Your task to perform on an android device: turn off smart reply in the gmail app Image 0: 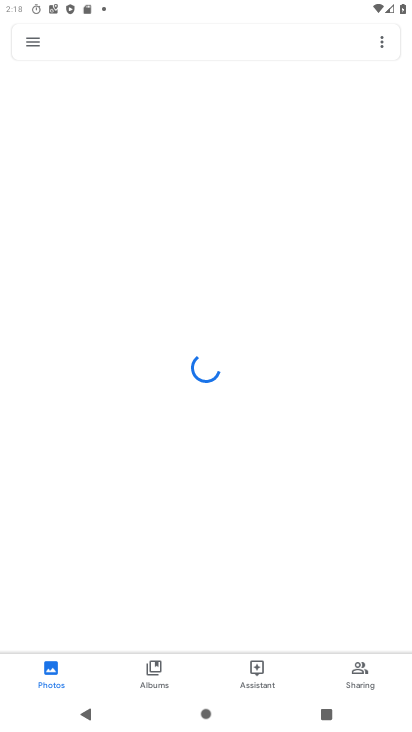
Step 0: press home button
Your task to perform on an android device: turn off smart reply in the gmail app Image 1: 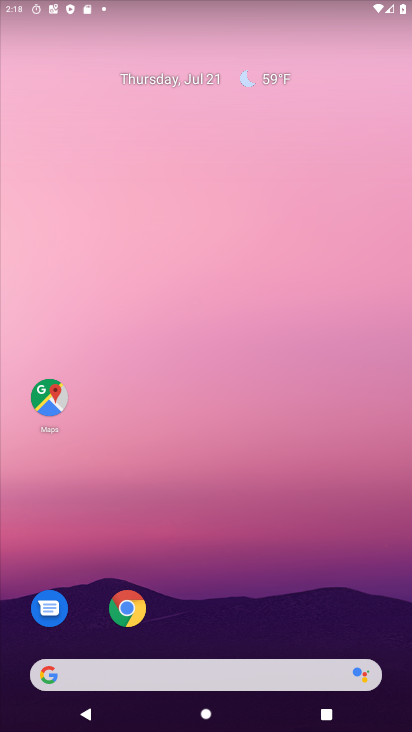
Step 1: drag from (260, 558) to (287, 117)
Your task to perform on an android device: turn off smart reply in the gmail app Image 2: 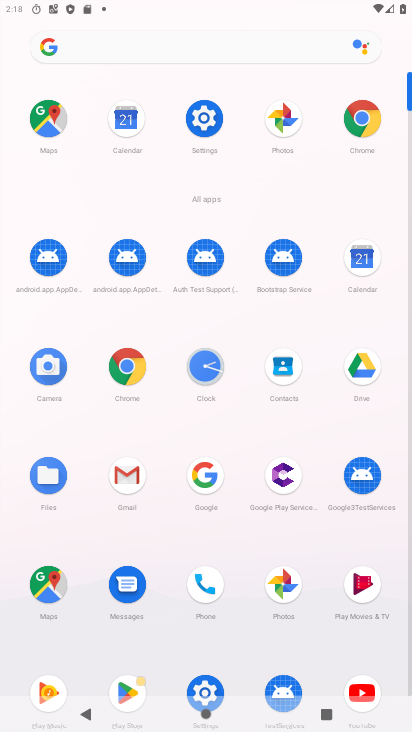
Step 2: click (114, 488)
Your task to perform on an android device: turn off smart reply in the gmail app Image 3: 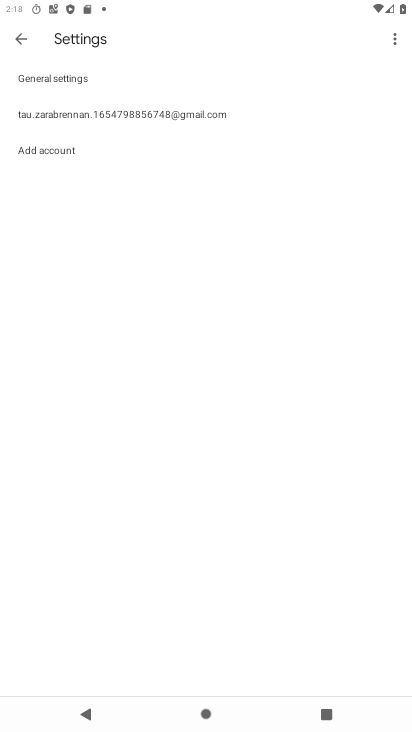
Step 3: click (78, 111)
Your task to perform on an android device: turn off smart reply in the gmail app Image 4: 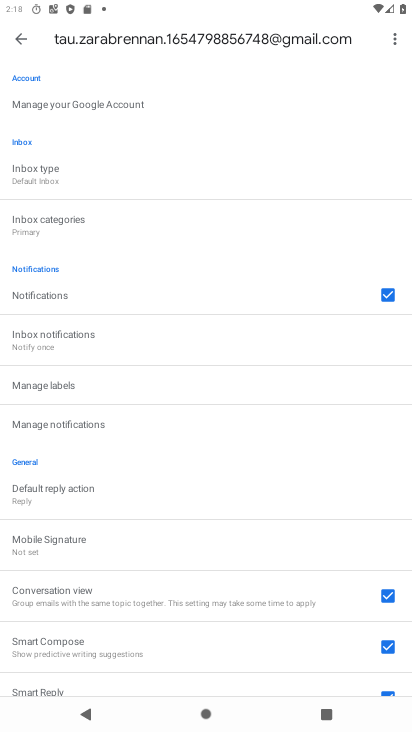
Step 4: task complete